Your task to perform on an android device: Open sound settings Image 0: 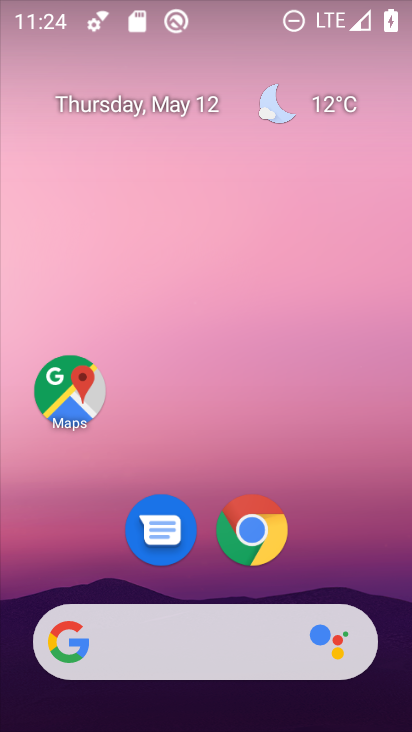
Step 0: drag from (258, 633) to (383, 104)
Your task to perform on an android device: Open sound settings Image 1: 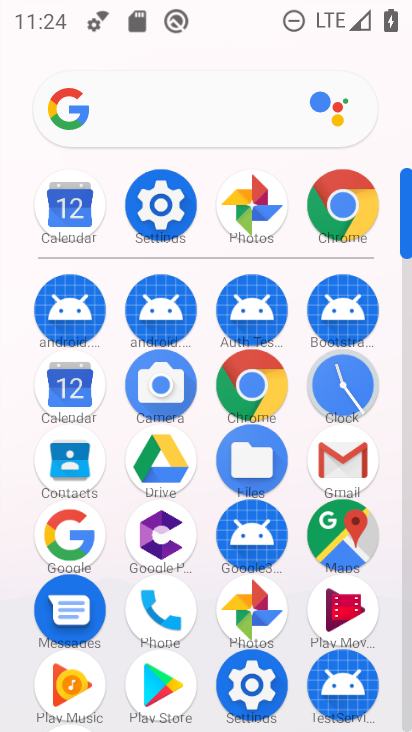
Step 1: click (151, 216)
Your task to perform on an android device: Open sound settings Image 2: 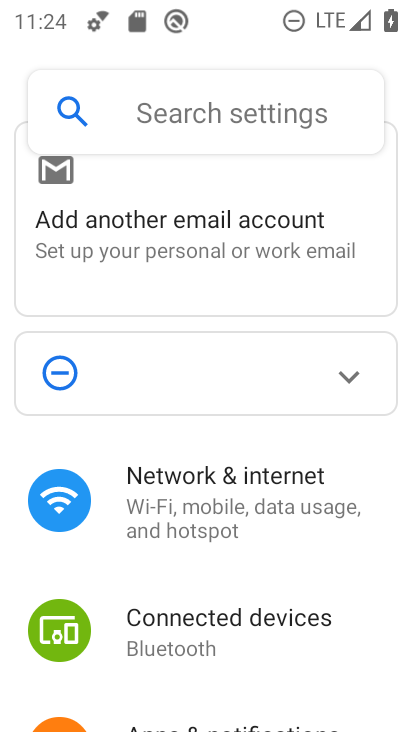
Step 2: drag from (206, 616) to (315, 118)
Your task to perform on an android device: Open sound settings Image 3: 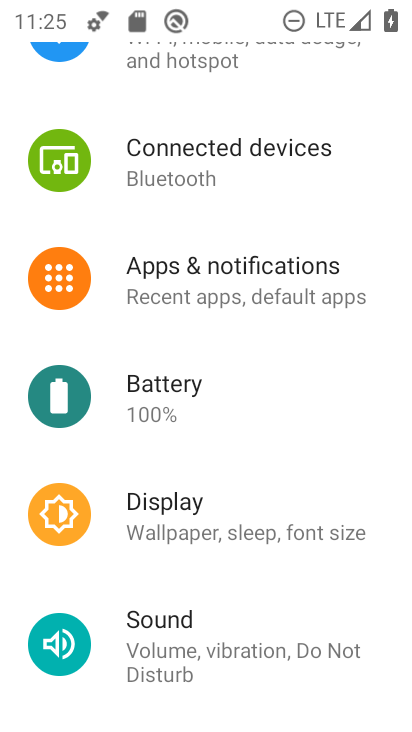
Step 3: click (167, 627)
Your task to perform on an android device: Open sound settings Image 4: 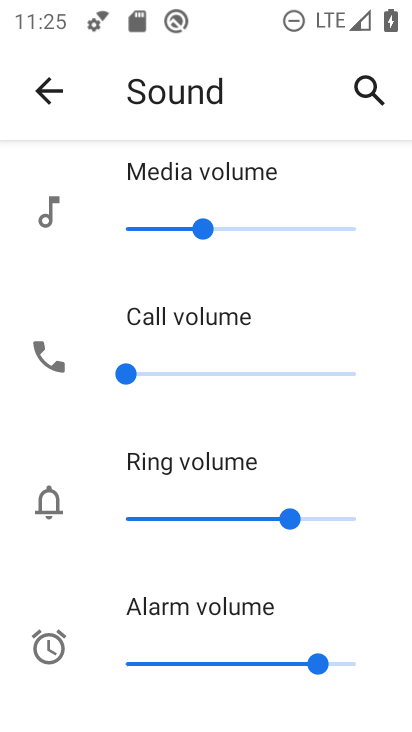
Step 4: task complete